Your task to perform on an android device: Is it going to rain today? Image 0: 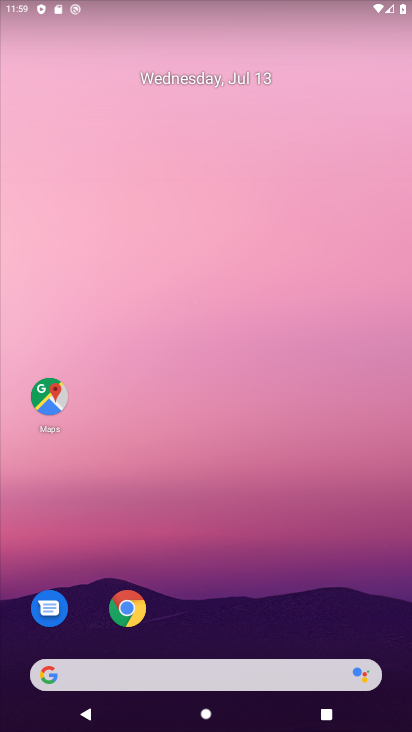
Step 0: click (191, 672)
Your task to perform on an android device: Is it going to rain today? Image 1: 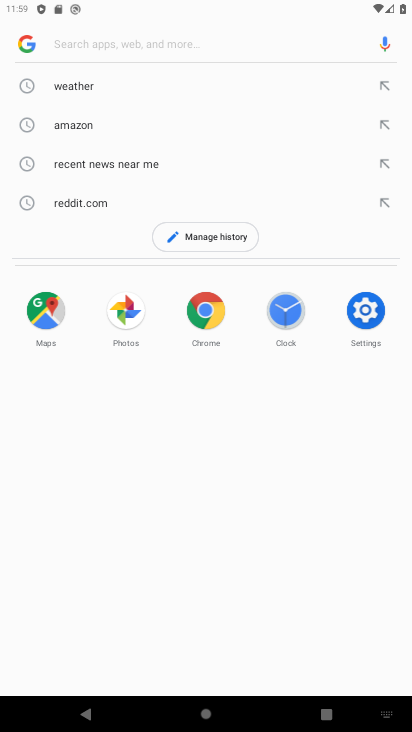
Step 1: click (93, 92)
Your task to perform on an android device: Is it going to rain today? Image 2: 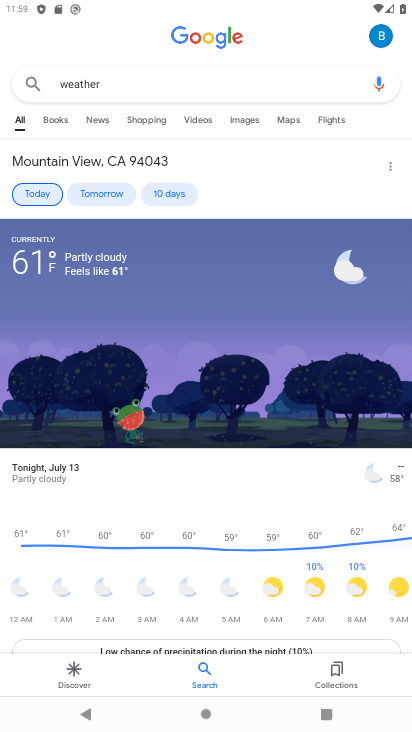
Step 2: task complete